Your task to perform on an android device: Open display settings Image 0: 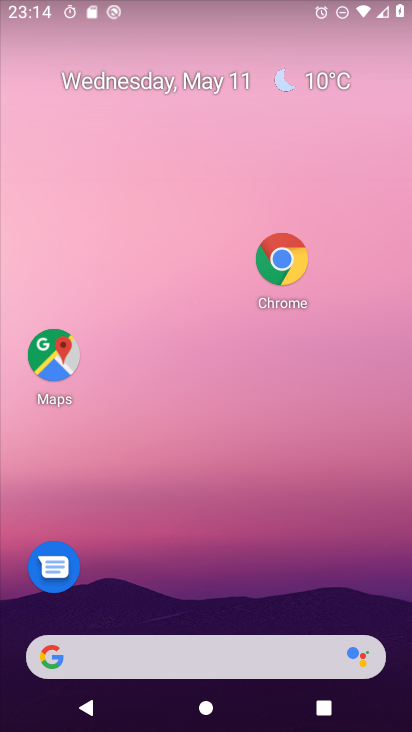
Step 0: drag from (163, 670) to (191, 164)
Your task to perform on an android device: Open display settings Image 1: 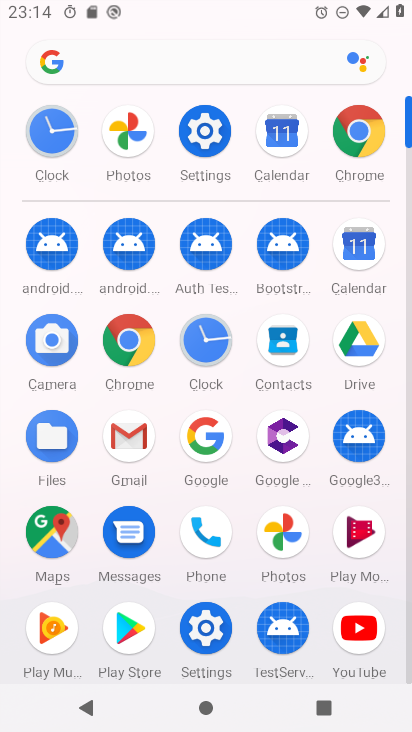
Step 1: click (203, 122)
Your task to perform on an android device: Open display settings Image 2: 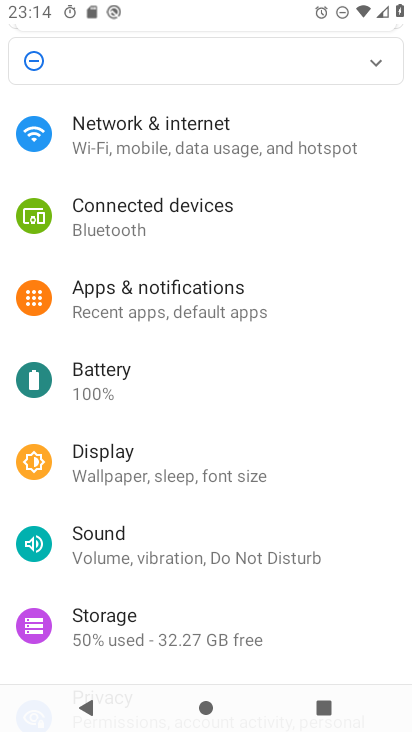
Step 2: click (142, 461)
Your task to perform on an android device: Open display settings Image 3: 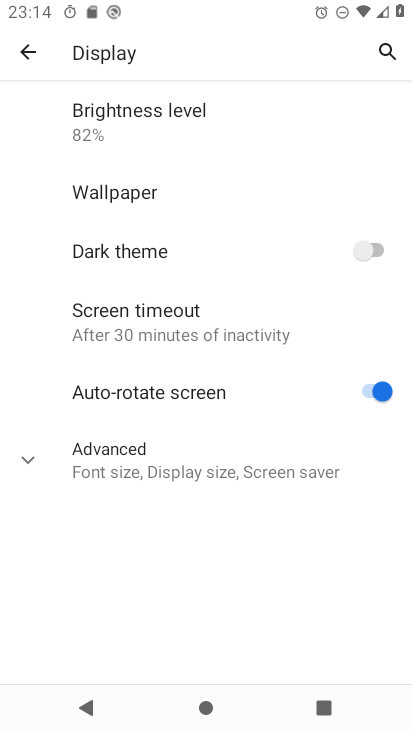
Step 3: task complete